Your task to perform on an android device: delete location history Image 0: 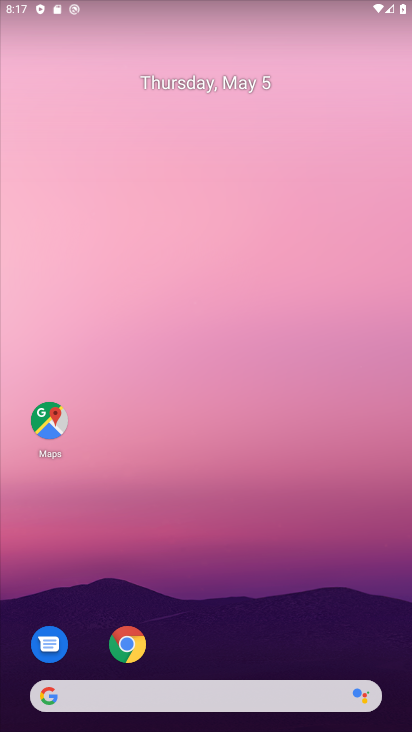
Step 0: drag from (307, 583) to (280, 57)
Your task to perform on an android device: delete location history Image 1: 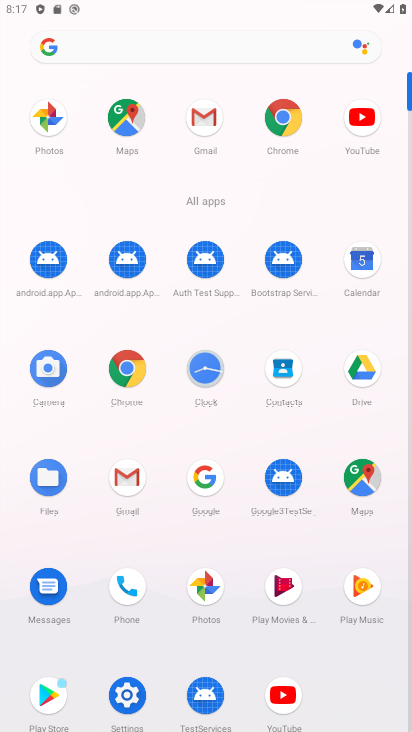
Step 1: click (116, 117)
Your task to perform on an android device: delete location history Image 2: 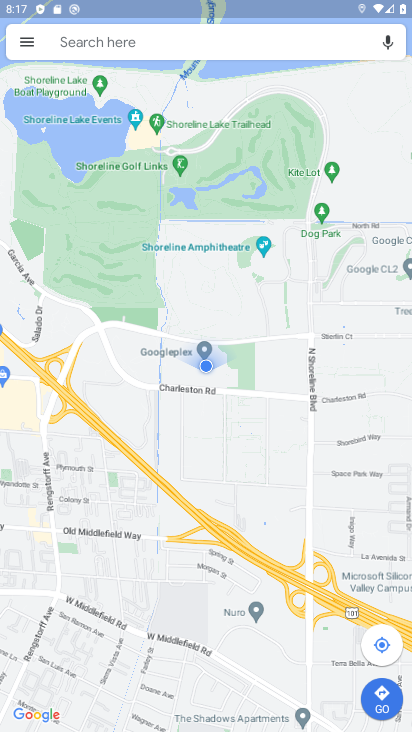
Step 2: click (26, 39)
Your task to perform on an android device: delete location history Image 3: 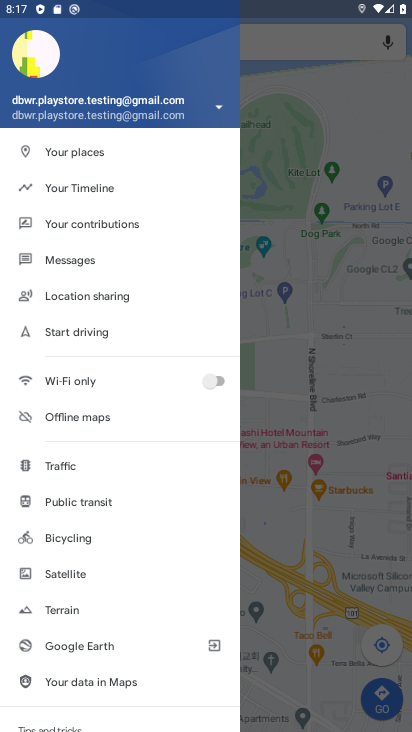
Step 3: click (66, 188)
Your task to perform on an android device: delete location history Image 4: 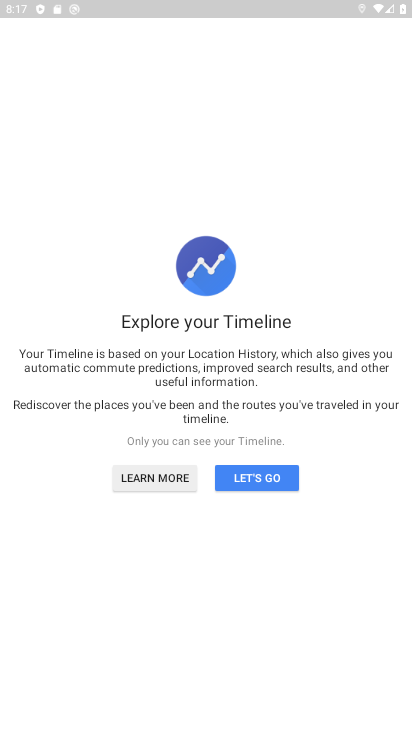
Step 4: click (231, 480)
Your task to perform on an android device: delete location history Image 5: 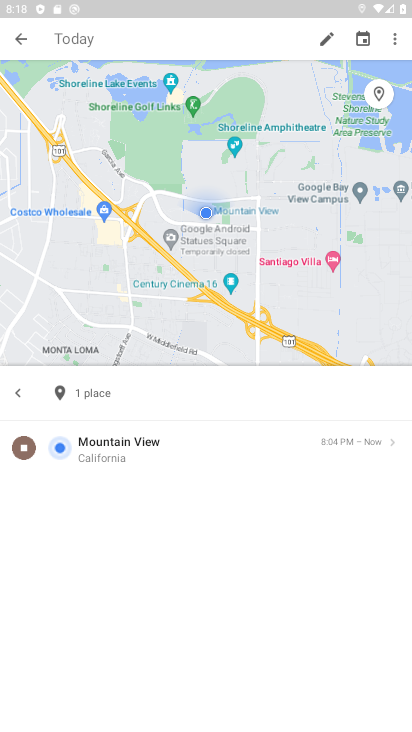
Step 5: click (386, 44)
Your task to perform on an android device: delete location history Image 6: 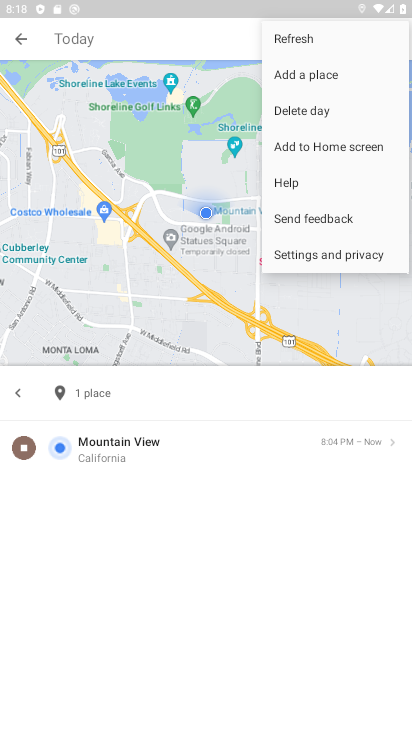
Step 6: click (328, 260)
Your task to perform on an android device: delete location history Image 7: 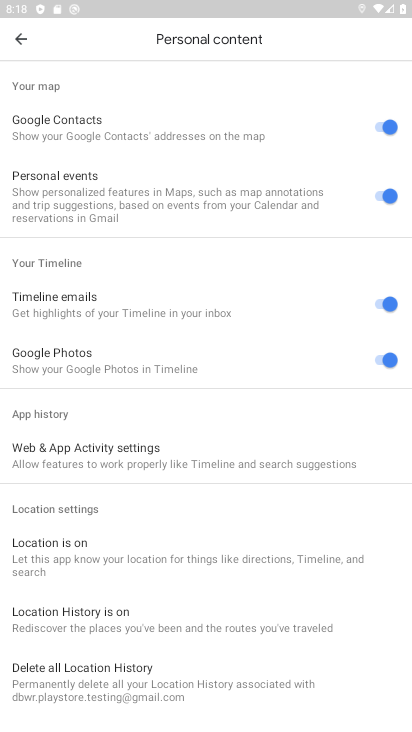
Step 7: drag from (172, 606) to (226, 192)
Your task to perform on an android device: delete location history Image 8: 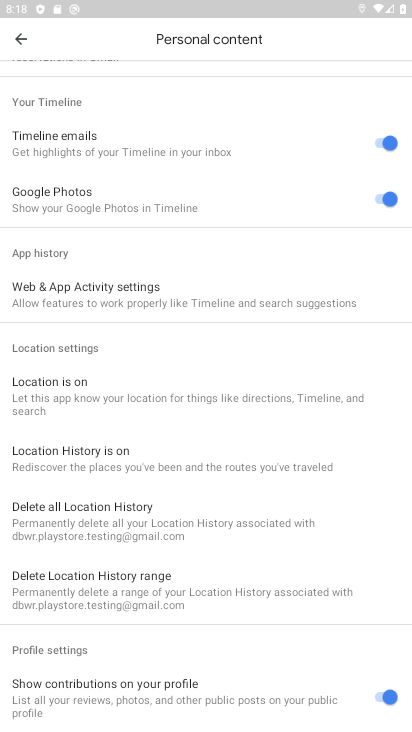
Step 8: click (69, 526)
Your task to perform on an android device: delete location history Image 9: 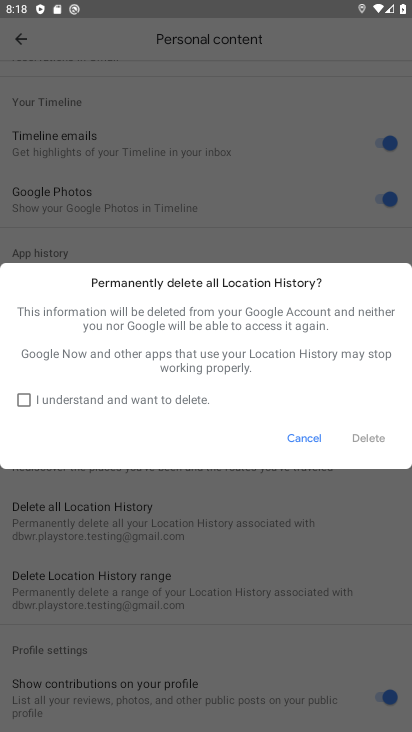
Step 9: click (17, 393)
Your task to perform on an android device: delete location history Image 10: 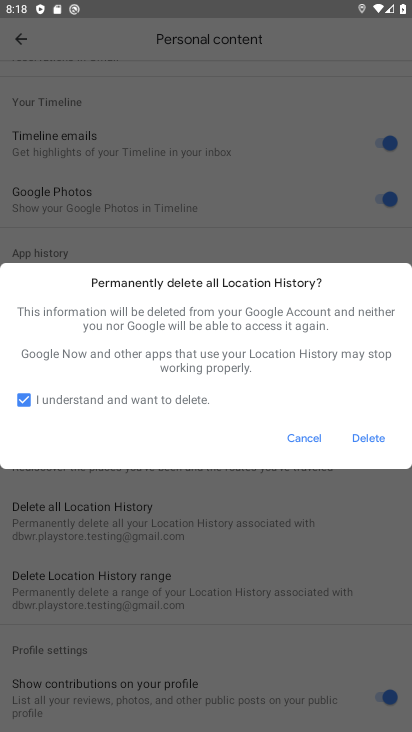
Step 10: click (379, 444)
Your task to perform on an android device: delete location history Image 11: 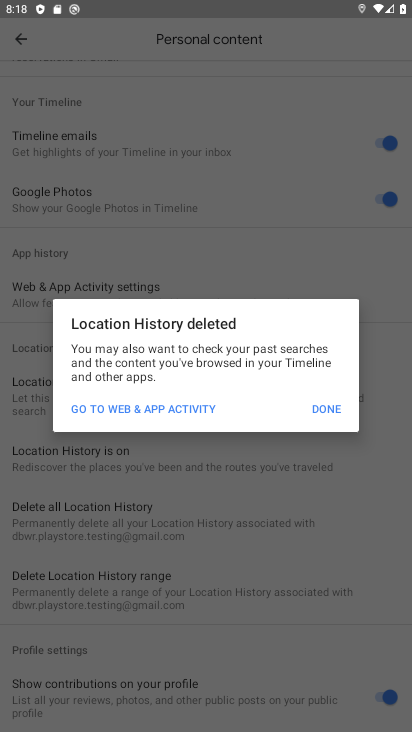
Step 11: click (335, 420)
Your task to perform on an android device: delete location history Image 12: 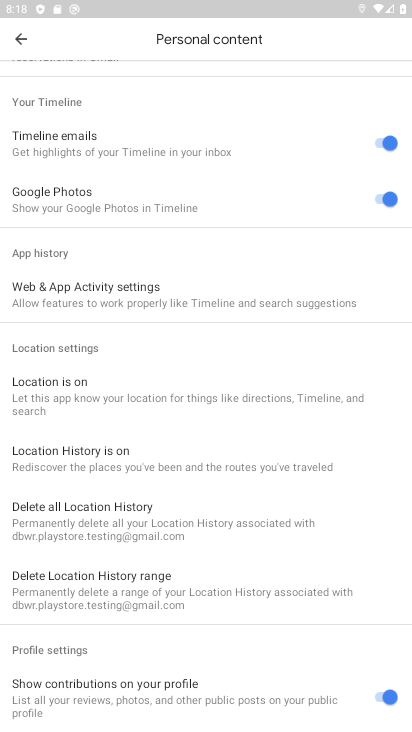
Step 12: task complete